Your task to perform on an android device: change the clock display to show seconds Image 0: 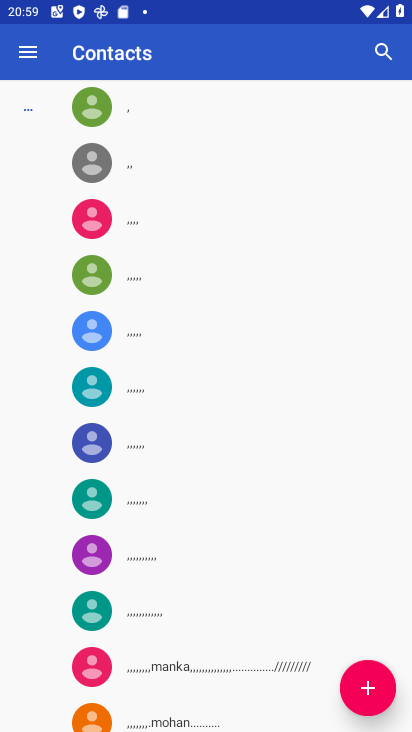
Step 0: press home button
Your task to perform on an android device: change the clock display to show seconds Image 1: 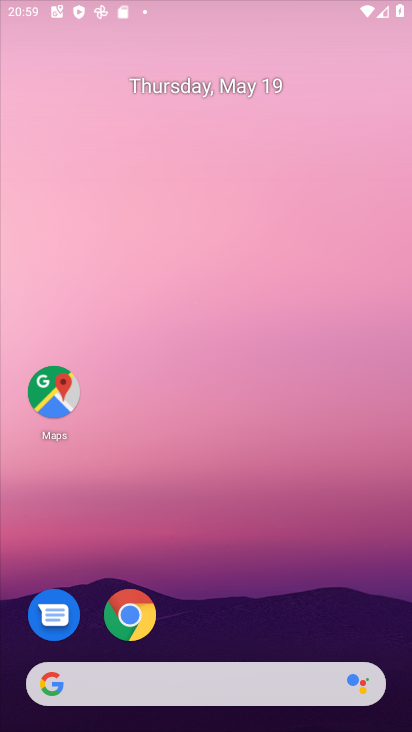
Step 1: drag from (240, 589) to (235, 117)
Your task to perform on an android device: change the clock display to show seconds Image 2: 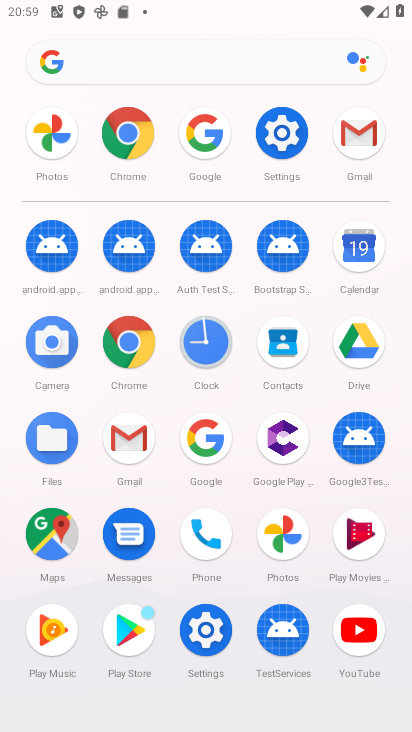
Step 2: click (205, 352)
Your task to perform on an android device: change the clock display to show seconds Image 3: 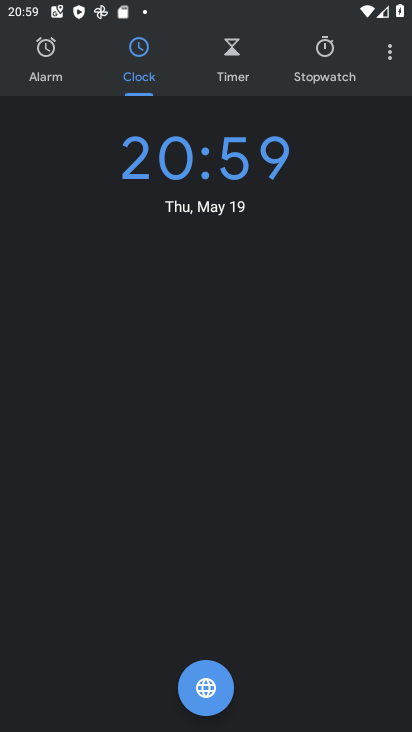
Step 3: click (385, 57)
Your task to perform on an android device: change the clock display to show seconds Image 4: 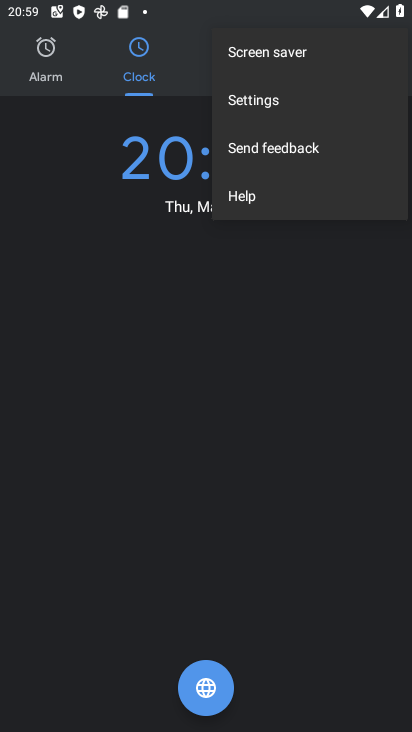
Step 4: click (285, 110)
Your task to perform on an android device: change the clock display to show seconds Image 5: 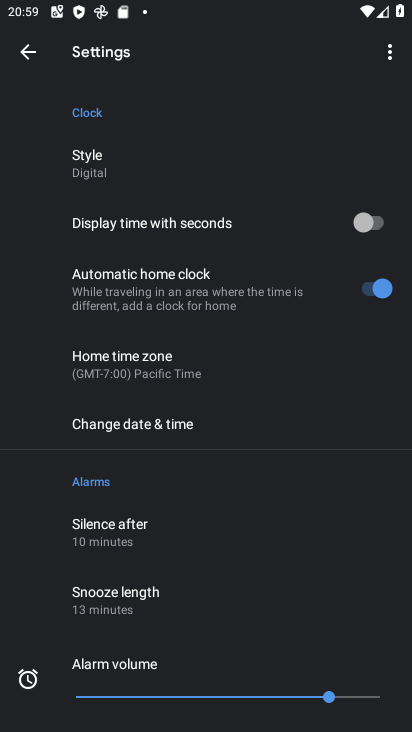
Step 5: click (362, 221)
Your task to perform on an android device: change the clock display to show seconds Image 6: 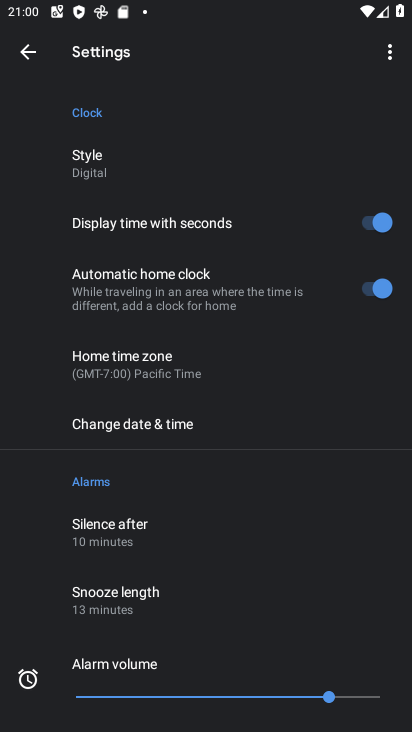
Step 6: task complete